Your task to perform on an android device: open app "Contacts" (install if not already installed) Image 0: 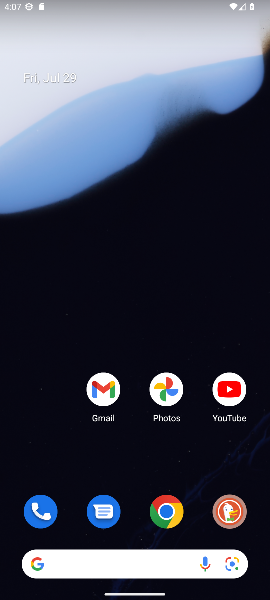
Step 0: drag from (42, 540) to (141, 161)
Your task to perform on an android device: open app "Contacts" (install if not already installed) Image 1: 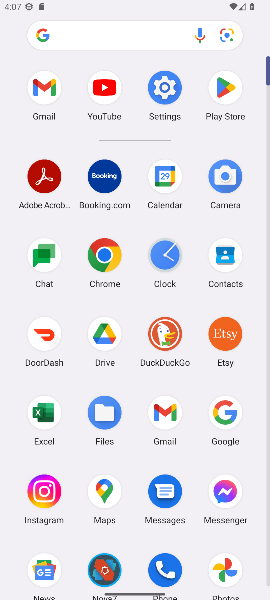
Step 1: click (168, 566)
Your task to perform on an android device: open app "Contacts" (install if not already installed) Image 2: 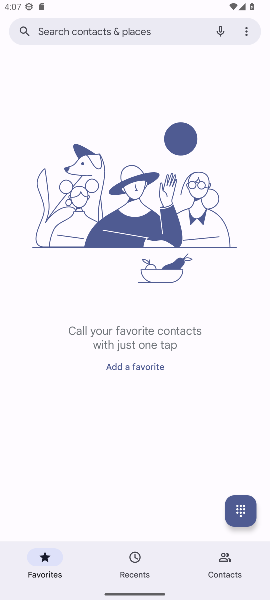
Step 2: task complete